Your task to perform on an android device: turn off notifications settings in the gmail app Image 0: 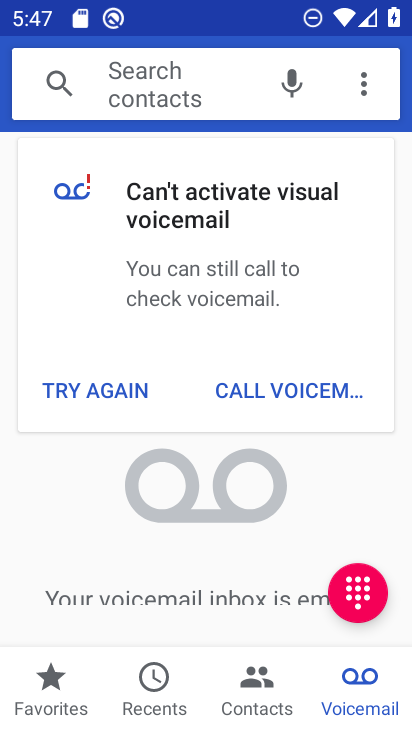
Step 0: press home button
Your task to perform on an android device: turn off notifications settings in the gmail app Image 1: 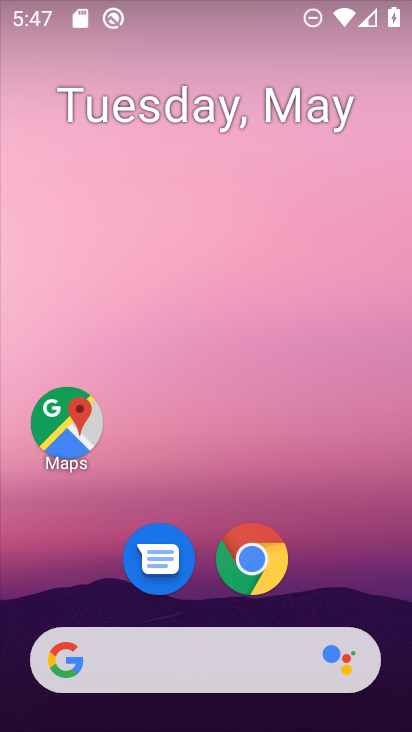
Step 1: drag from (309, 601) to (289, 277)
Your task to perform on an android device: turn off notifications settings in the gmail app Image 2: 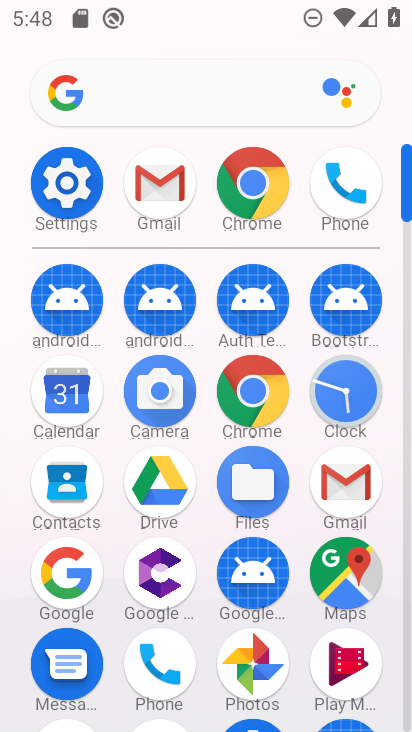
Step 2: click (349, 466)
Your task to perform on an android device: turn off notifications settings in the gmail app Image 3: 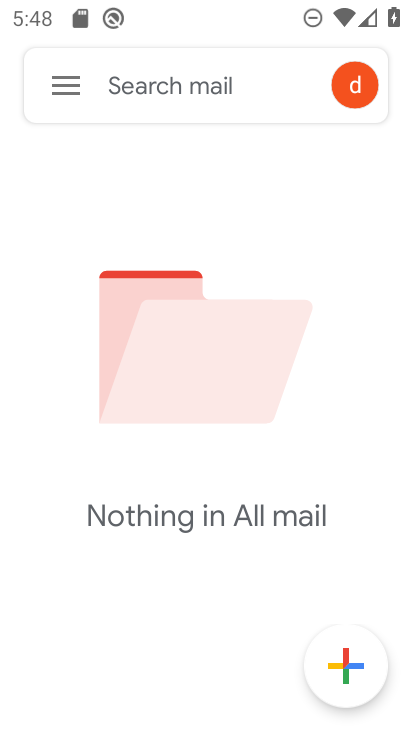
Step 3: click (69, 92)
Your task to perform on an android device: turn off notifications settings in the gmail app Image 4: 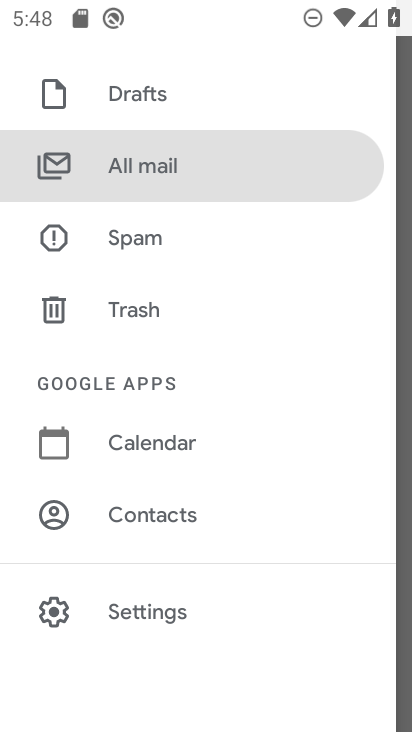
Step 4: click (145, 605)
Your task to perform on an android device: turn off notifications settings in the gmail app Image 5: 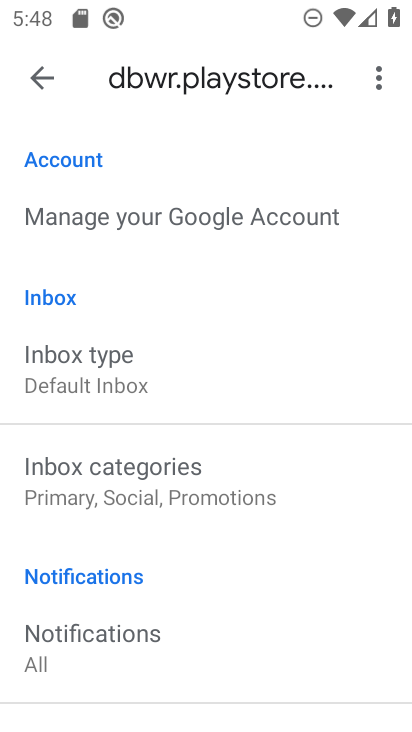
Step 5: drag from (171, 627) to (181, 366)
Your task to perform on an android device: turn off notifications settings in the gmail app Image 6: 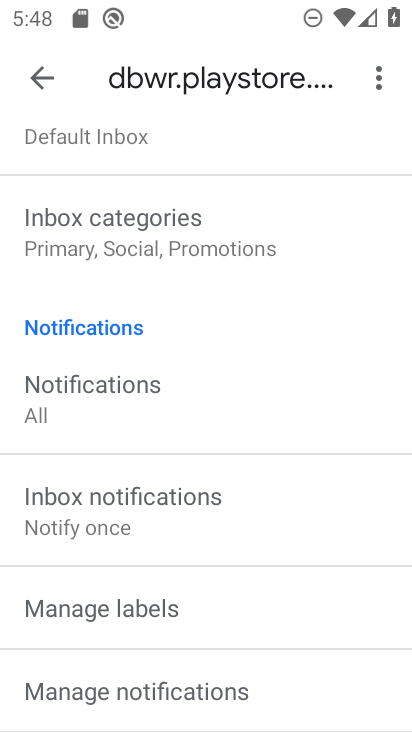
Step 6: click (151, 701)
Your task to perform on an android device: turn off notifications settings in the gmail app Image 7: 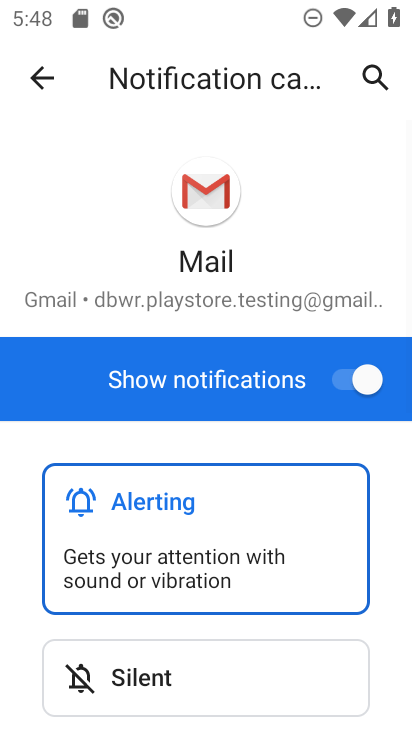
Step 7: click (334, 393)
Your task to perform on an android device: turn off notifications settings in the gmail app Image 8: 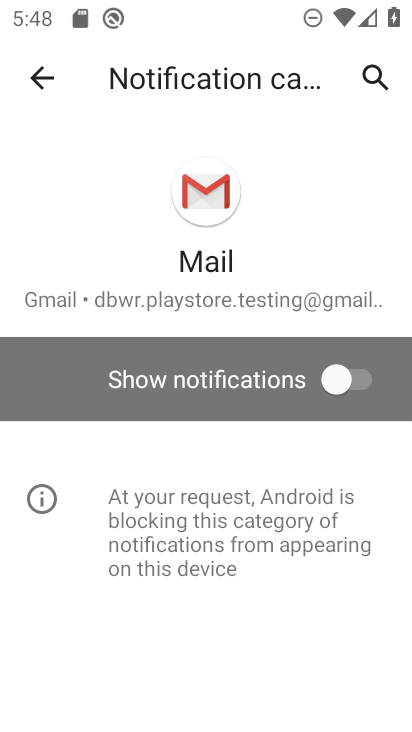
Step 8: task complete